Your task to perform on an android device: Open calendar and show me the second week of next month Image 0: 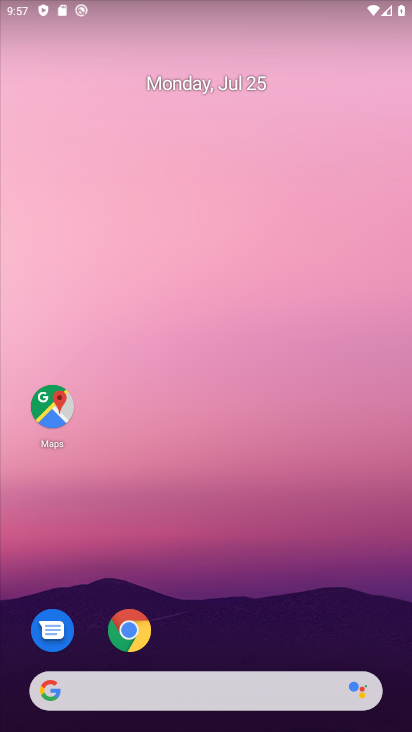
Step 0: press home button
Your task to perform on an android device: Open calendar and show me the second week of next month Image 1: 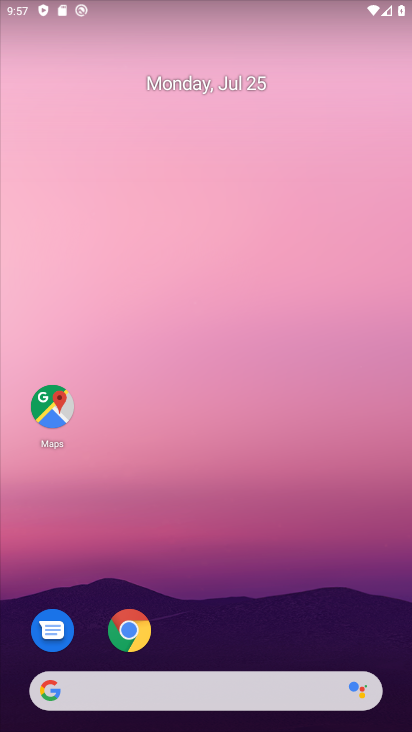
Step 1: drag from (299, 573) to (318, 133)
Your task to perform on an android device: Open calendar and show me the second week of next month Image 2: 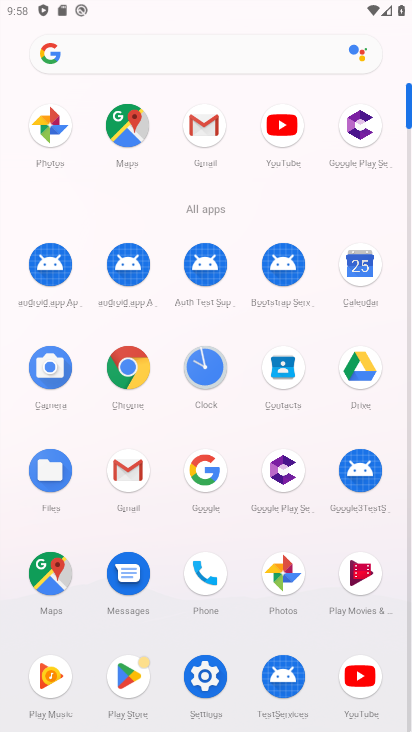
Step 2: click (362, 266)
Your task to perform on an android device: Open calendar and show me the second week of next month Image 3: 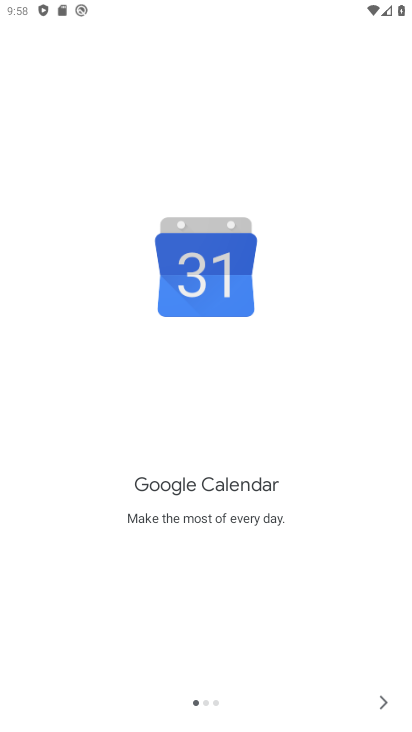
Step 3: click (377, 702)
Your task to perform on an android device: Open calendar and show me the second week of next month Image 4: 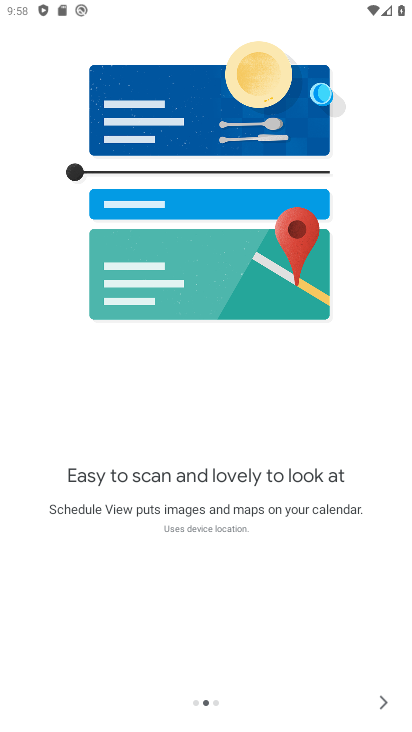
Step 4: click (377, 702)
Your task to perform on an android device: Open calendar and show me the second week of next month Image 5: 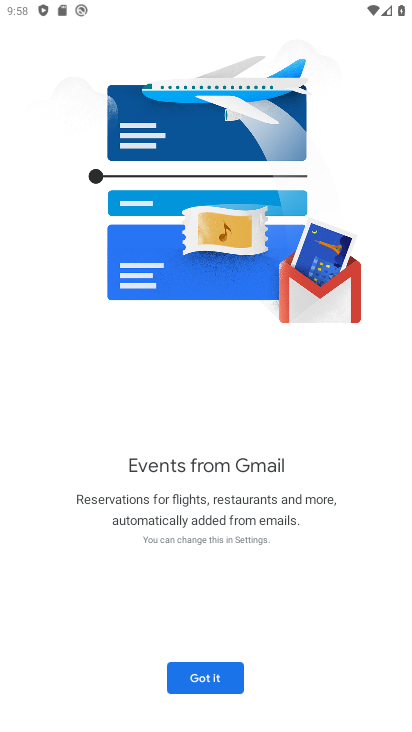
Step 5: click (232, 670)
Your task to perform on an android device: Open calendar and show me the second week of next month Image 6: 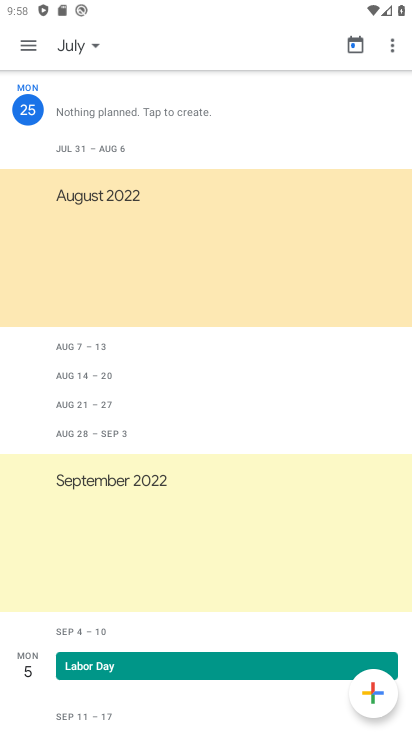
Step 6: click (93, 46)
Your task to perform on an android device: Open calendar and show me the second week of next month Image 7: 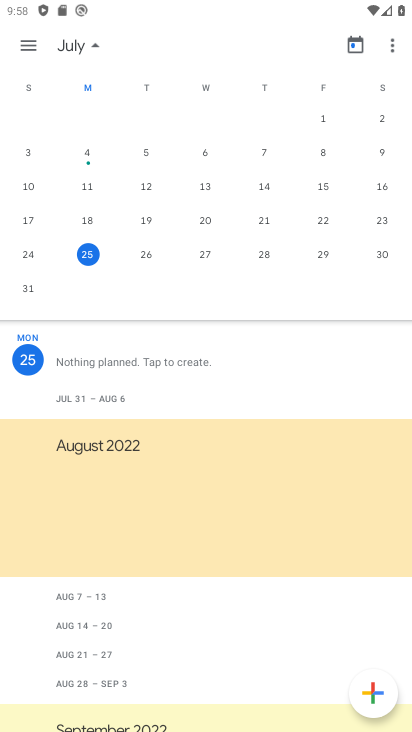
Step 7: drag from (391, 134) to (29, 120)
Your task to perform on an android device: Open calendar and show me the second week of next month Image 8: 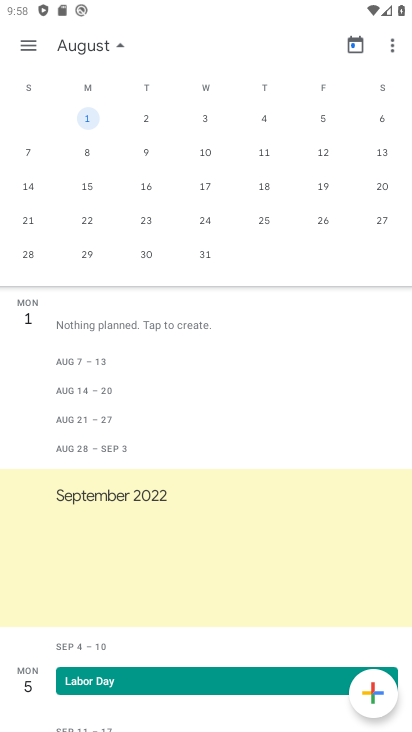
Step 8: click (86, 156)
Your task to perform on an android device: Open calendar and show me the second week of next month Image 9: 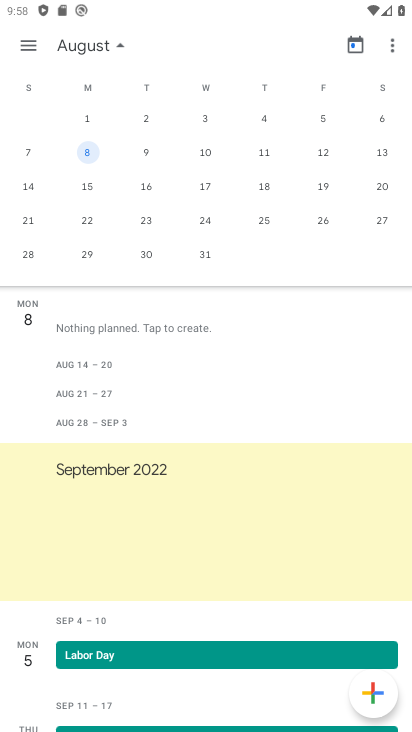
Step 9: task complete